Your task to perform on an android device: move an email to a new category in the gmail app Image 0: 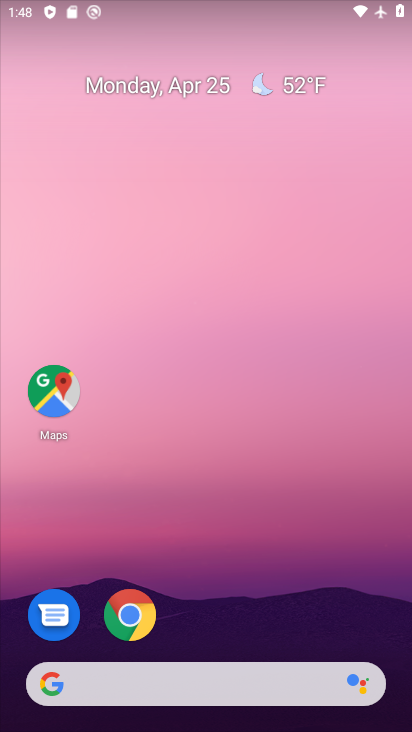
Step 0: drag from (247, 552) to (217, 48)
Your task to perform on an android device: move an email to a new category in the gmail app Image 1: 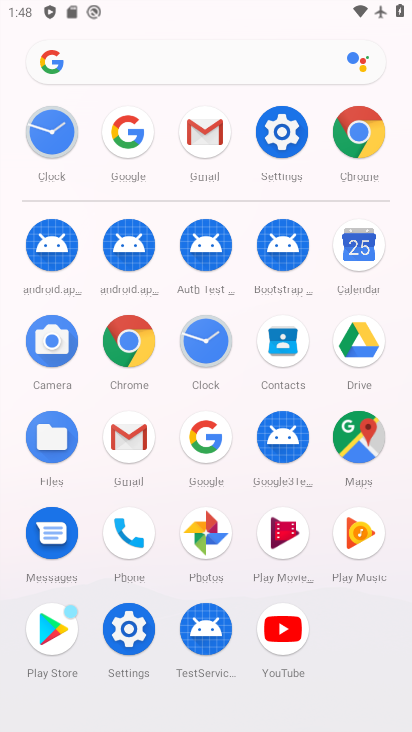
Step 1: click (203, 132)
Your task to perform on an android device: move an email to a new category in the gmail app Image 2: 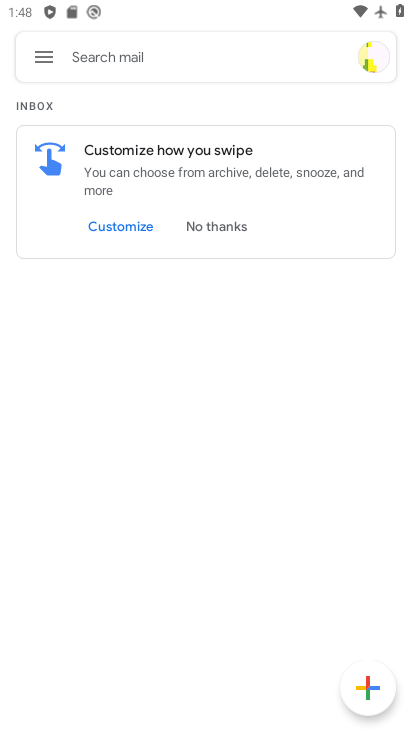
Step 2: click (47, 65)
Your task to perform on an android device: move an email to a new category in the gmail app Image 3: 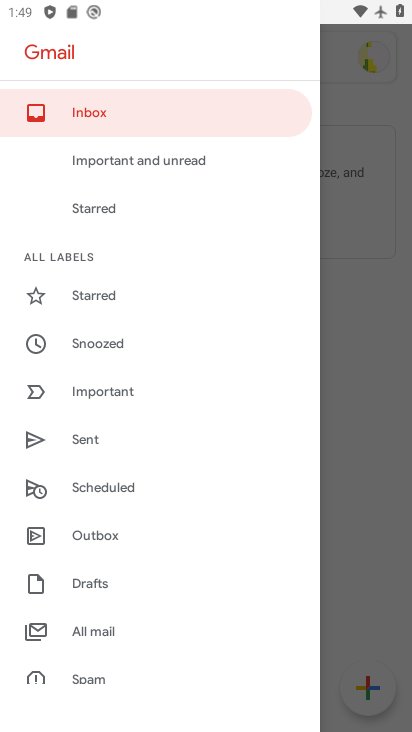
Step 3: click (101, 628)
Your task to perform on an android device: move an email to a new category in the gmail app Image 4: 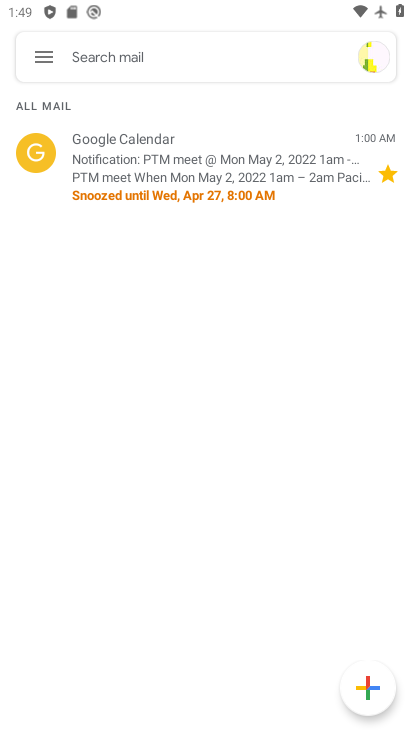
Step 4: click (297, 157)
Your task to perform on an android device: move an email to a new category in the gmail app Image 5: 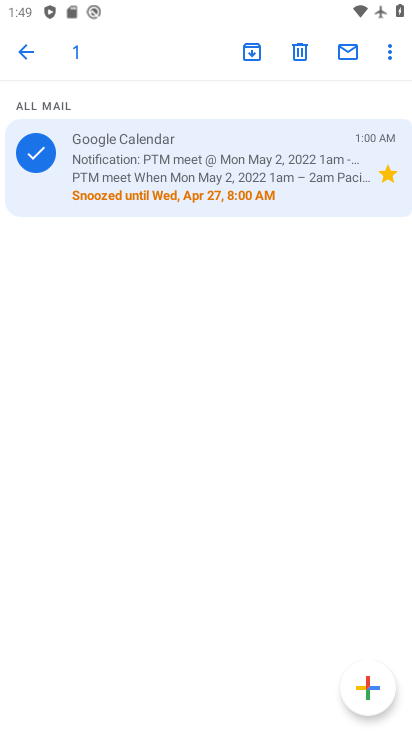
Step 5: click (395, 58)
Your task to perform on an android device: move an email to a new category in the gmail app Image 6: 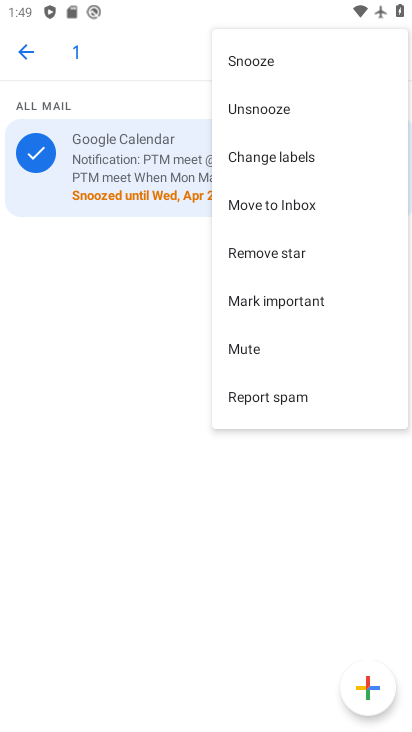
Step 6: click (278, 202)
Your task to perform on an android device: move an email to a new category in the gmail app Image 7: 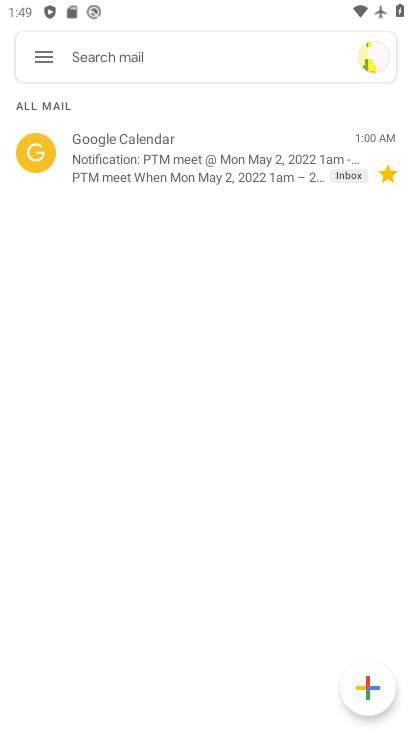
Step 7: task complete